Your task to perform on an android device: add a contact in the contacts app Image 0: 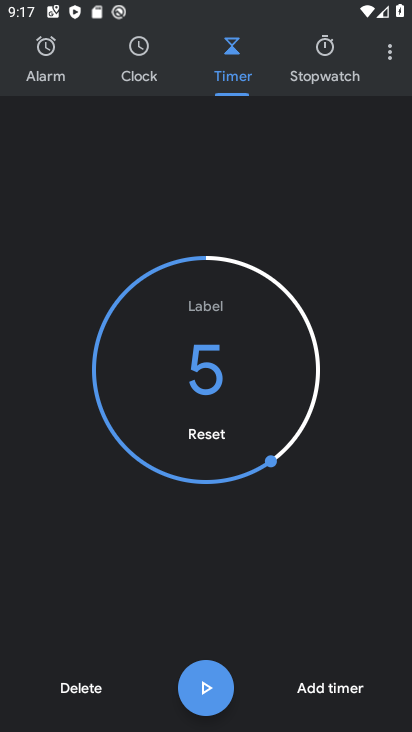
Step 0: press home button
Your task to perform on an android device: add a contact in the contacts app Image 1: 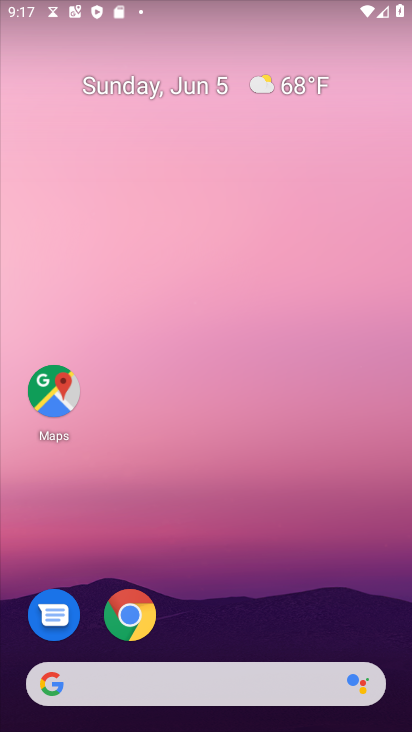
Step 1: drag from (116, 730) to (191, 133)
Your task to perform on an android device: add a contact in the contacts app Image 2: 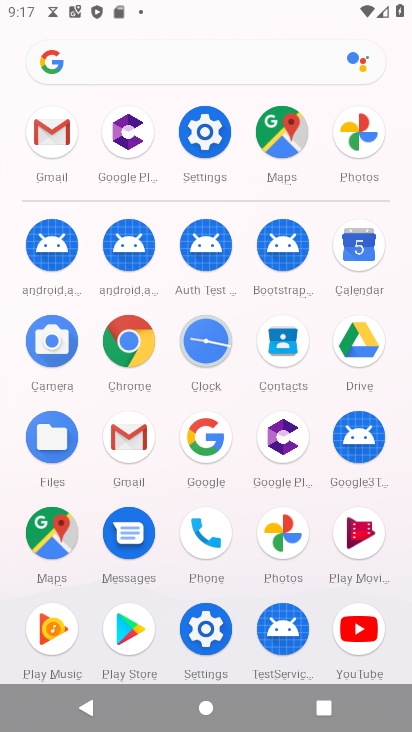
Step 2: click (276, 366)
Your task to perform on an android device: add a contact in the contacts app Image 3: 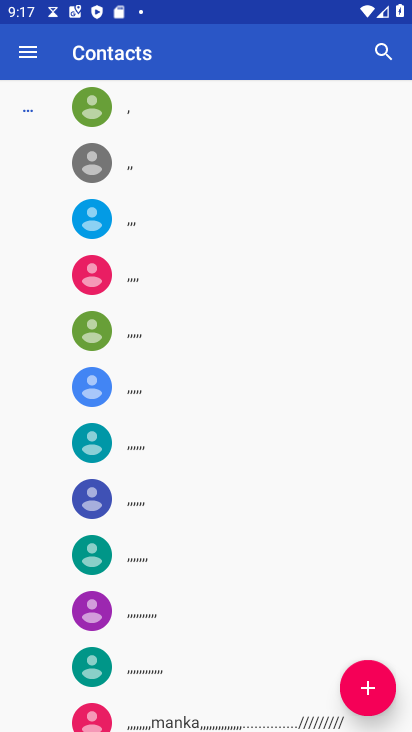
Step 3: click (360, 671)
Your task to perform on an android device: add a contact in the contacts app Image 4: 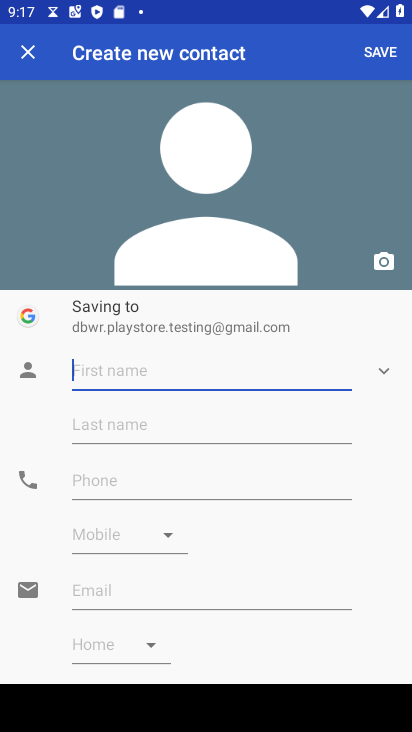
Step 4: type "hghk"
Your task to perform on an android device: add a contact in the contacts app Image 5: 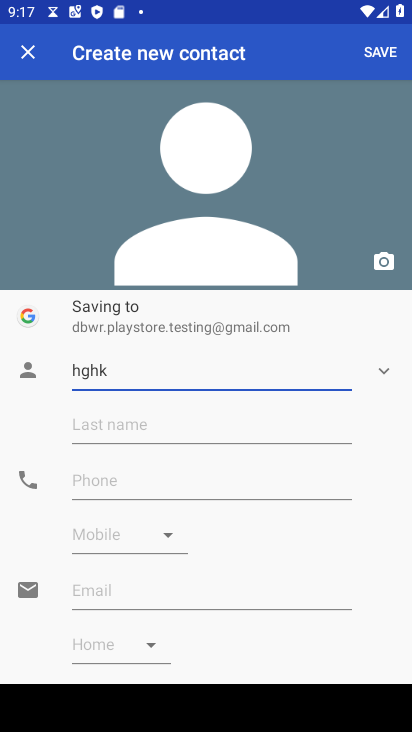
Step 5: click (91, 483)
Your task to perform on an android device: add a contact in the contacts app Image 6: 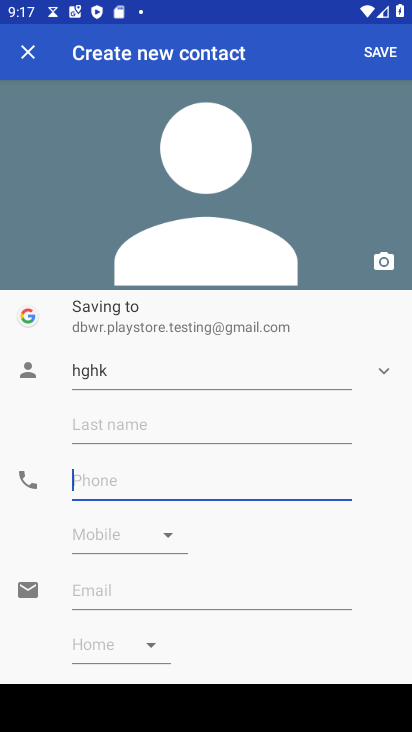
Step 6: type "9876542134"
Your task to perform on an android device: add a contact in the contacts app Image 7: 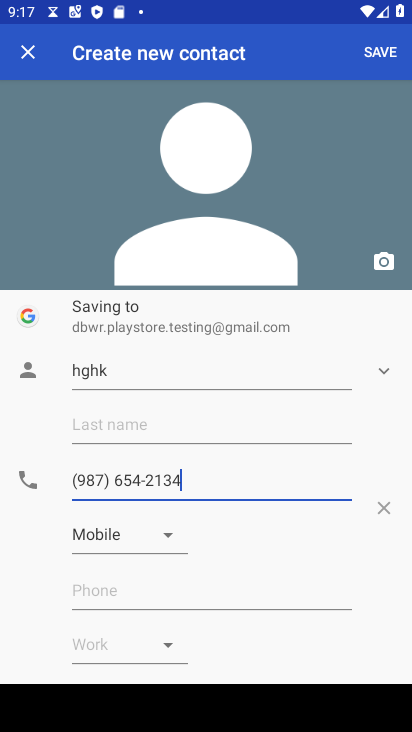
Step 7: click (378, 51)
Your task to perform on an android device: add a contact in the contacts app Image 8: 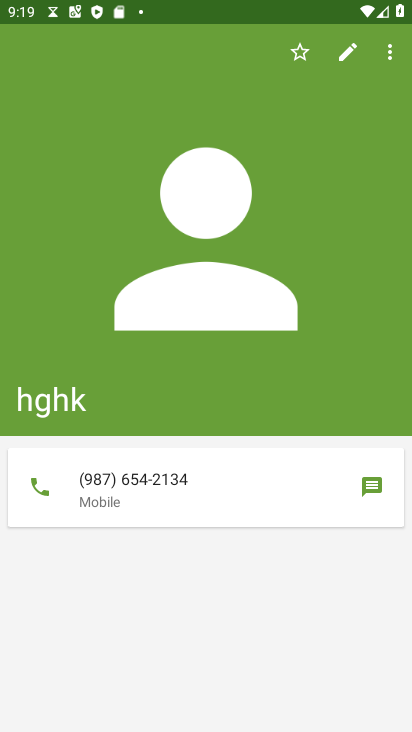
Step 8: task complete